Your task to perform on an android device: Open Amazon Image 0: 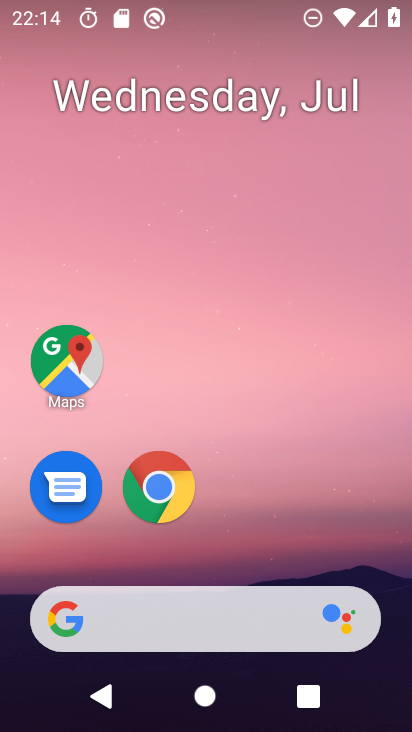
Step 0: drag from (383, 524) to (361, 96)
Your task to perform on an android device: Open Amazon Image 1: 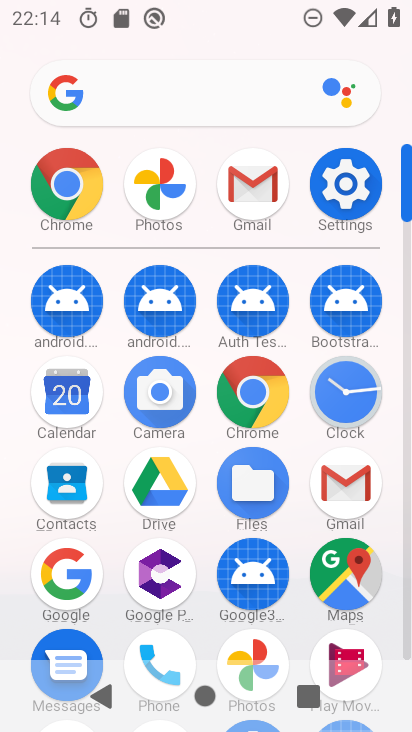
Step 1: click (254, 394)
Your task to perform on an android device: Open Amazon Image 2: 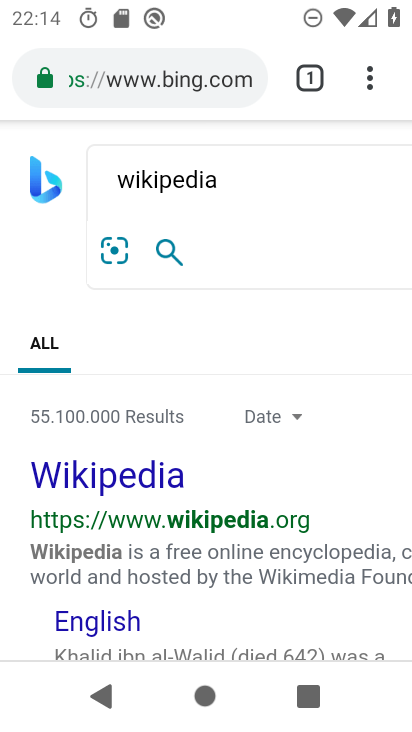
Step 2: click (223, 88)
Your task to perform on an android device: Open Amazon Image 3: 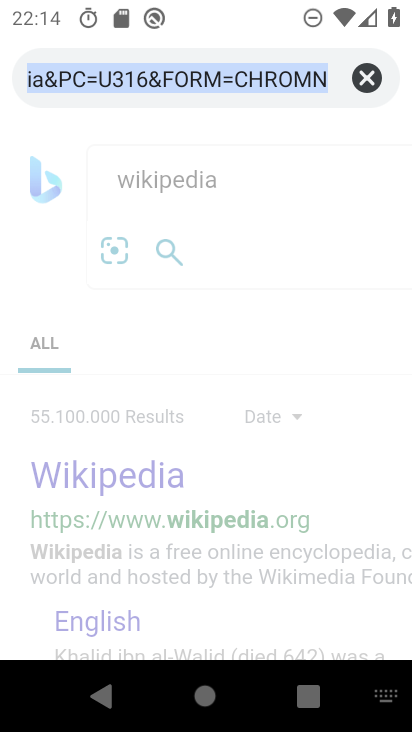
Step 3: type "amazon"
Your task to perform on an android device: Open Amazon Image 4: 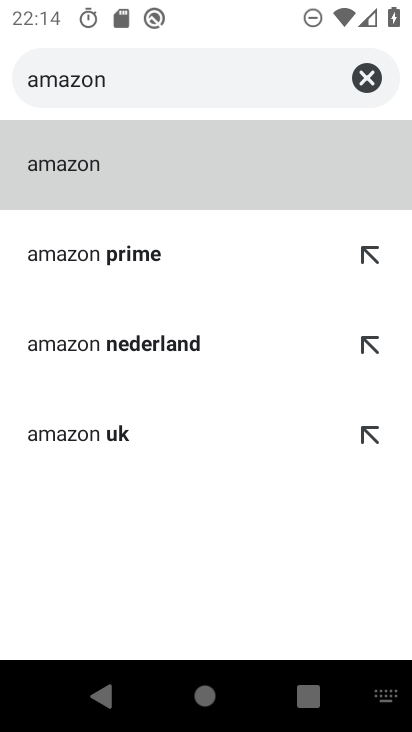
Step 4: click (293, 187)
Your task to perform on an android device: Open Amazon Image 5: 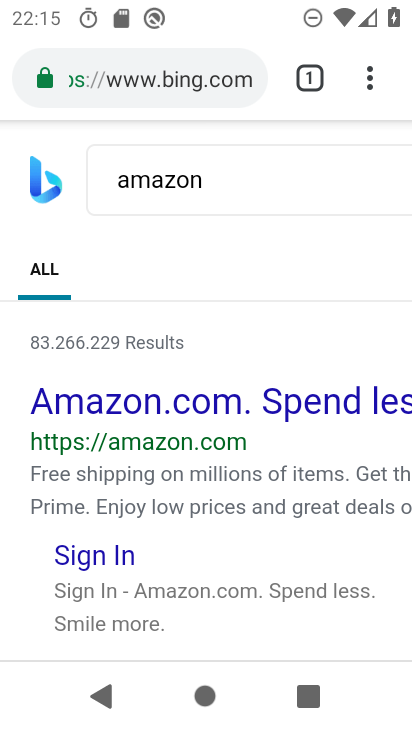
Step 5: task complete